Your task to perform on an android device: toggle translation in the chrome app Image 0: 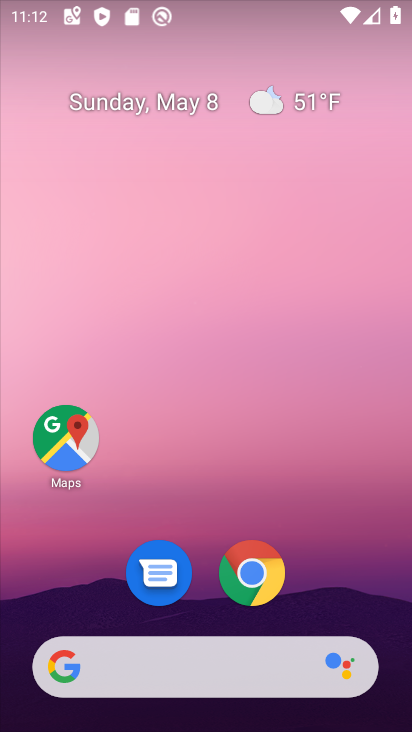
Step 0: click (250, 571)
Your task to perform on an android device: toggle translation in the chrome app Image 1: 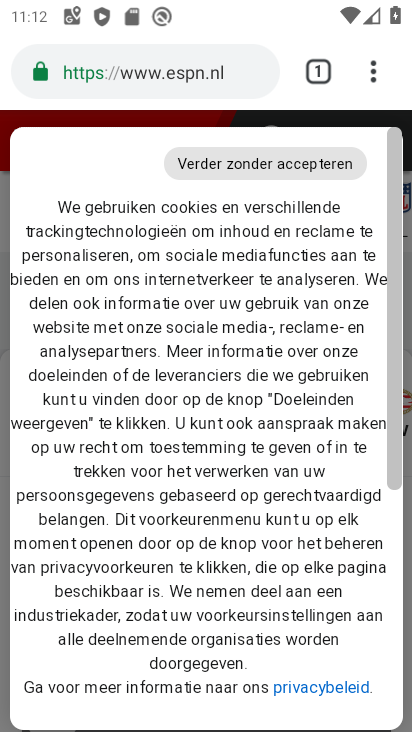
Step 1: click (377, 80)
Your task to perform on an android device: toggle translation in the chrome app Image 2: 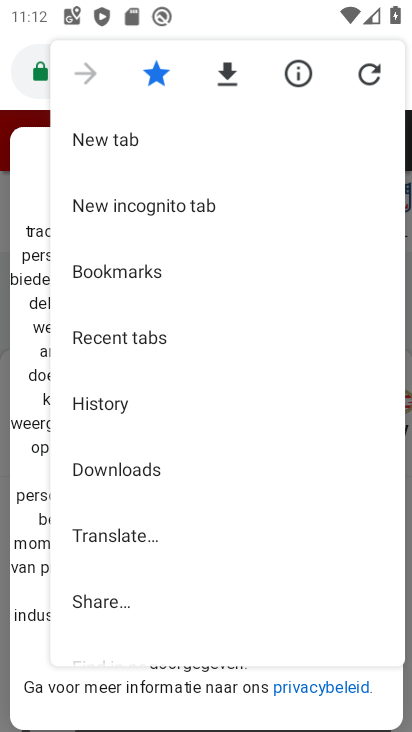
Step 2: drag from (155, 622) to (150, 285)
Your task to perform on an android device: toggle translation in the chrome app Image 3: 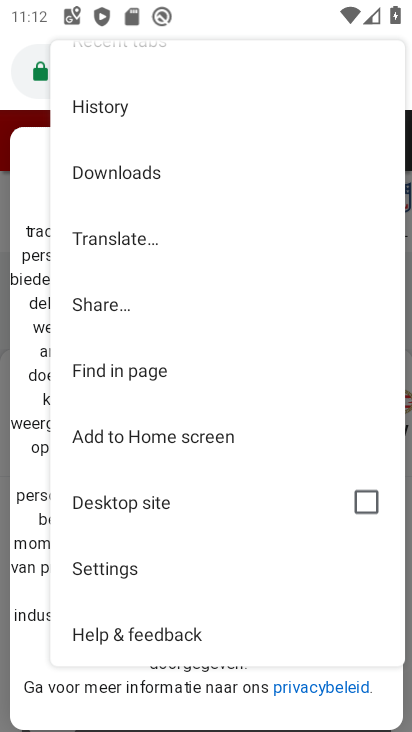
Step 3: click (129, 579)
Your task to perform on an android device: toggle translation in the chrome app Image 4: 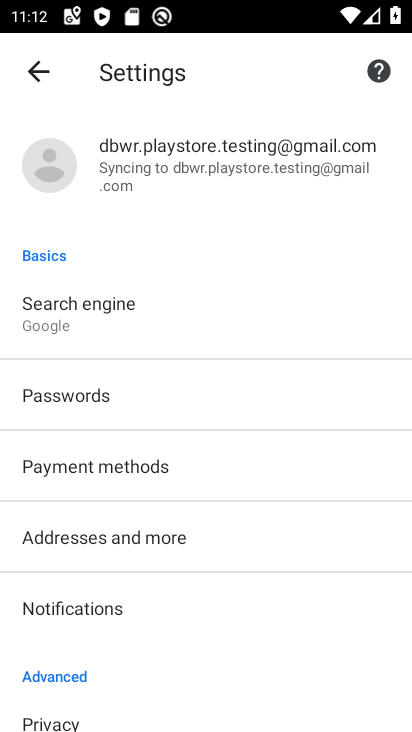
Step 4: drag from (106, 693) to (140, 331)
Your task to perform on an android device: toggle translation in the chrome app Image 5: 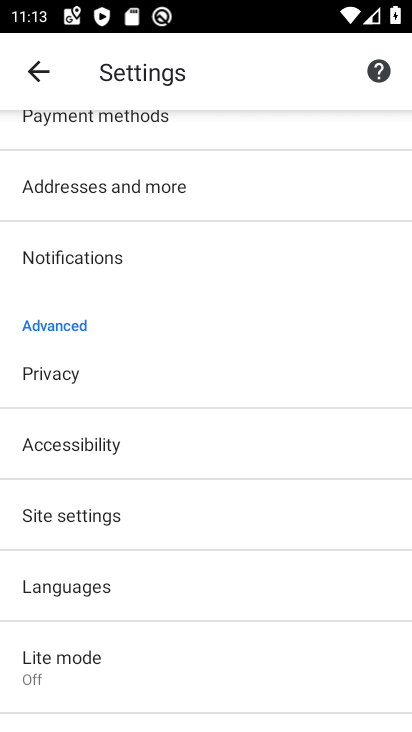
Step 5: click (79, 582)
Your task to perform on an android device: toggle translation in the chrome app Image 6: 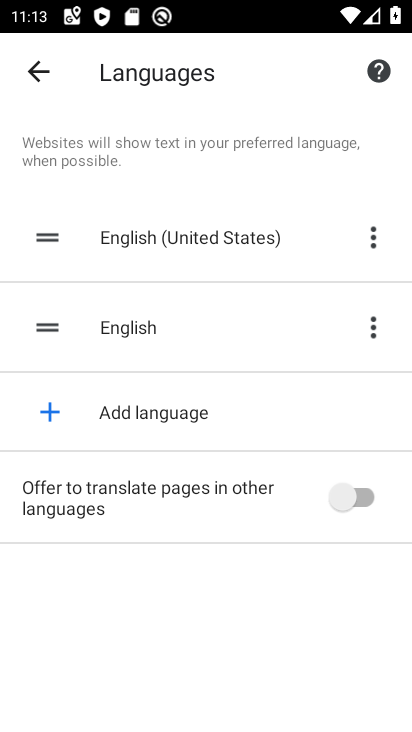
Step 6: click (358, 492)
Your task to perform on an android device: toggle translation in the chrome app Image 7: 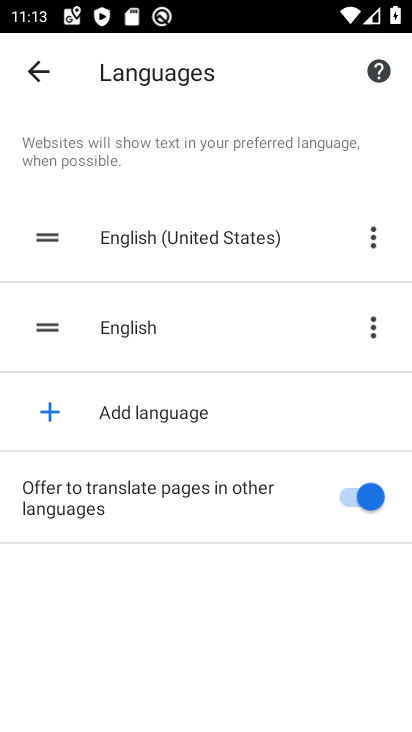
Step 7: task complete